Your task to perform on an android device: Open location settings Image 0: 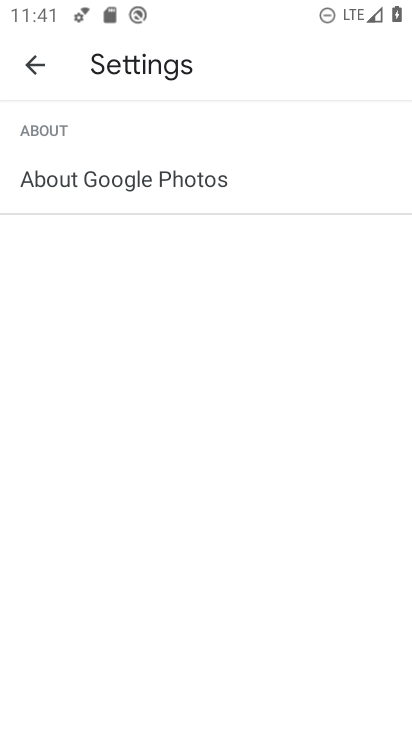
Step 0: press home button
Your task to perform on an android device: Open location settings Image 1: 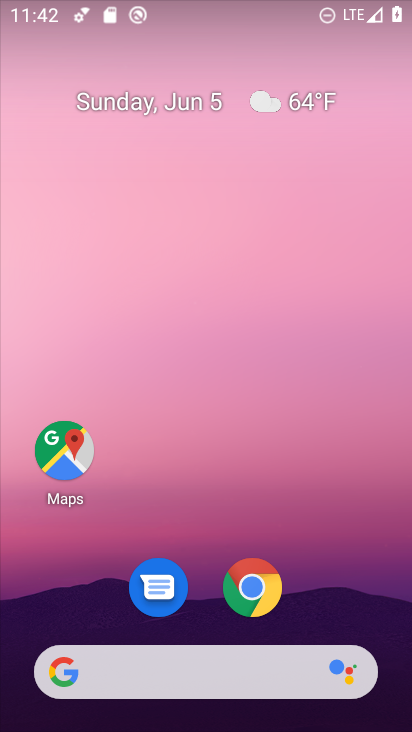
Step 1: drag from (202, 622) to (287, 4)
Your task to perform on an android device: Open location settings Image 2: 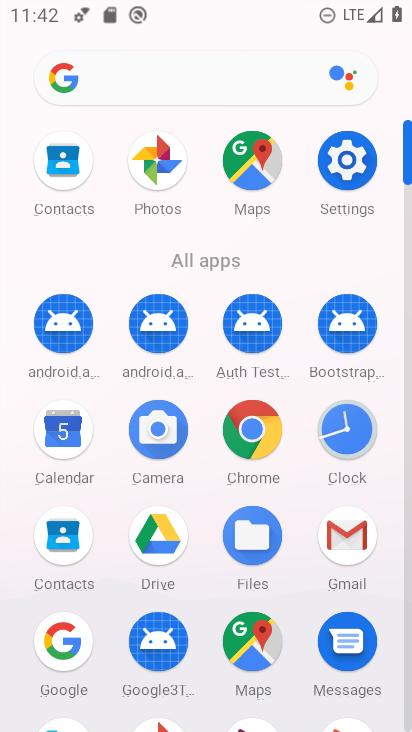
Step 2: click (339, 147)
Your task to perform on an android device: Open location settings Image 3: 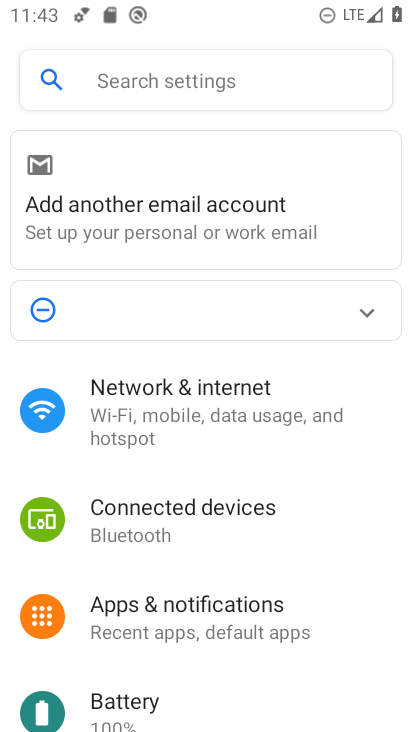
Step 3: drag from (305, 343) to (260, 76)
Your task to perform on an android device: Open location settings Image 4: 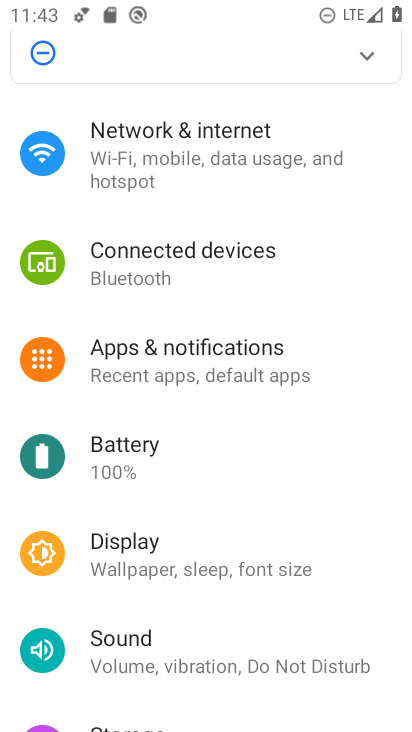
Step 4: drag from (106, 660) to (211, 78)
Your task to perform on an android device: Open location settings Image 5: 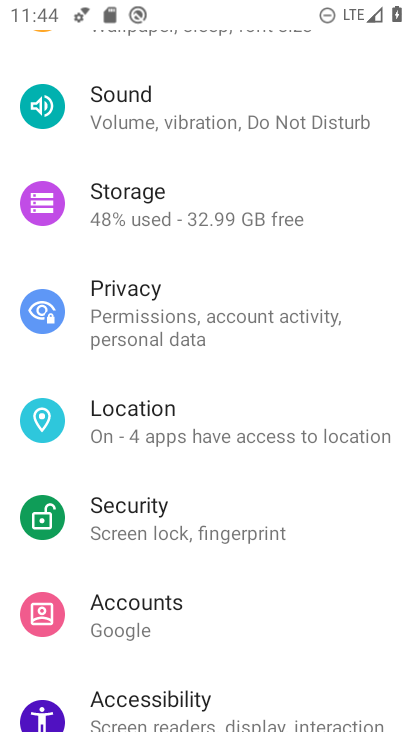
Step 5: click (116, 411)
Your task to perform on an android device: Open location settings Image 6: 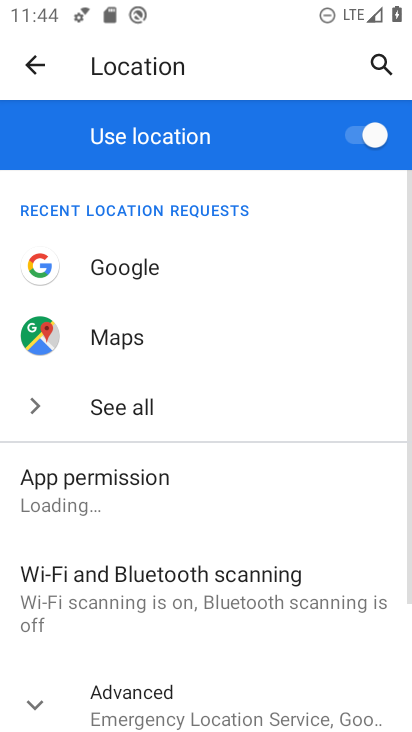
Step 6: task complete